Your task to perform on an android device: see tabs open on other devices in the chrome app Image 0: 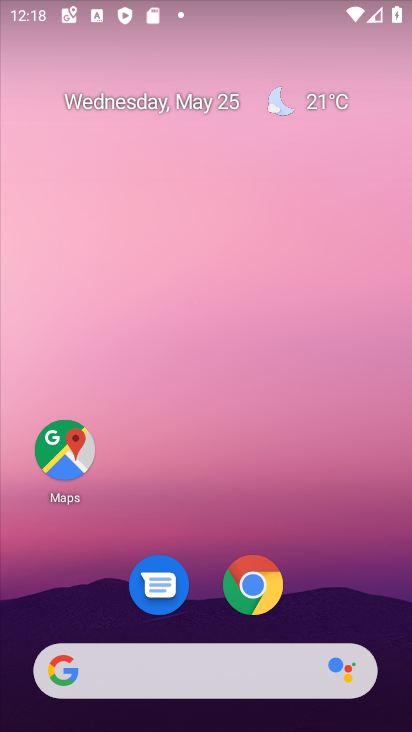
Step 0: click (259, 582)
Your task to perform on an android device: see tabs open on other devices in the chrome app Image 1: 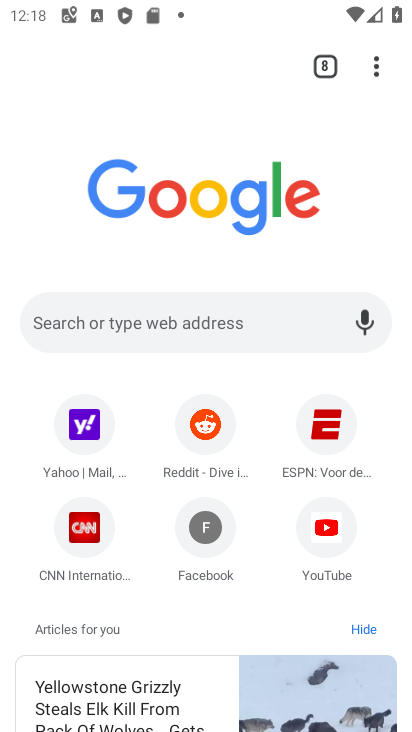
Step 1: click (374, 70)
Your task to perform on an android device: see tabs open on other devices in the chrome app Image 2: 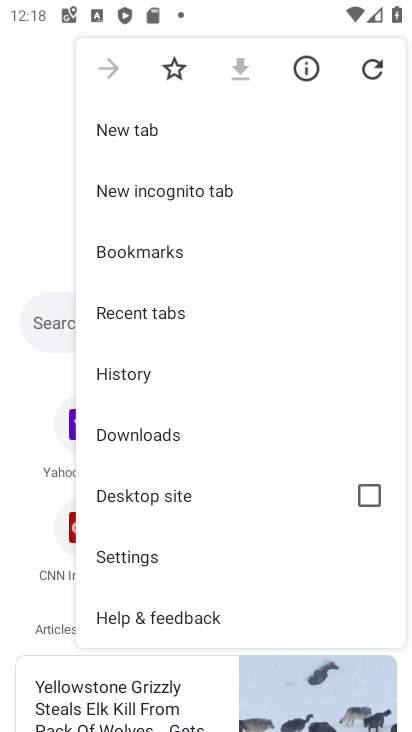
Step 2: click (155, 298)
Your task to perform on an android device: see tabs open on other devices in the chrome app Image 3: 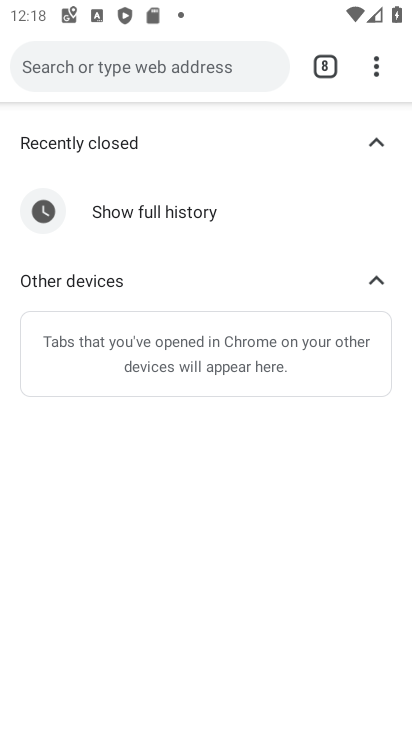
Step 3: task complete